Your task to perform on an android device: Open Google Chrome and open the bookmarks view Image 0: 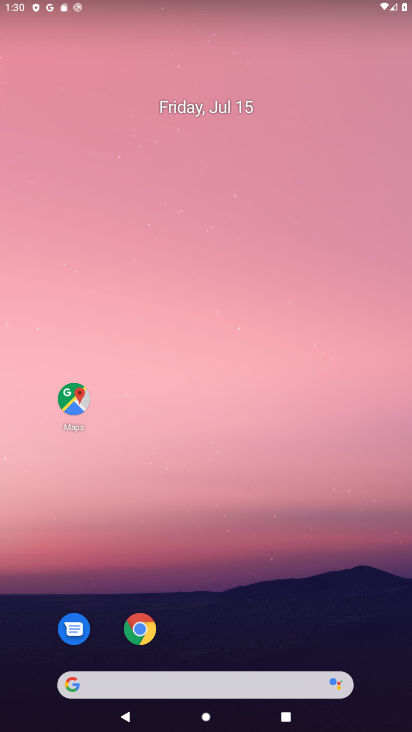
Step 0: click (147, 620)
Your task to perform on an android device: Open Google Chrome and open the bookmarks view Image 1: 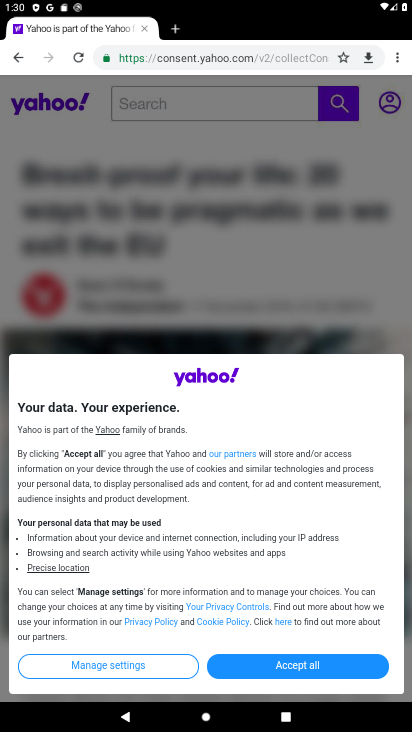
Step 1: click (397, 59)
Your task to perform on an android device: Open Google Chrome and open the bookmarks view Image 2: 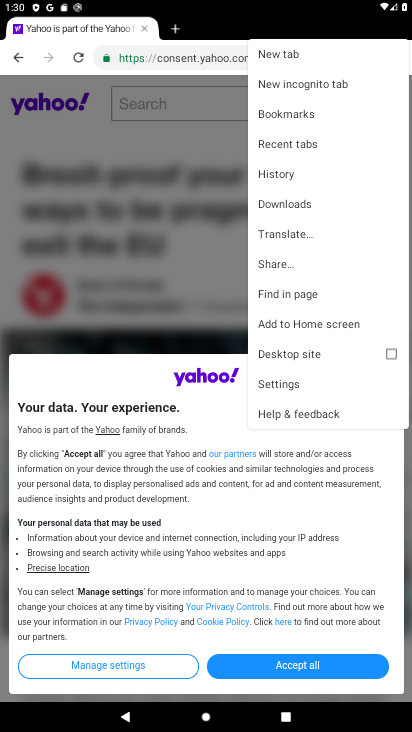
Step 2: click (289, 123)
Your task to perform on an android device: Open Google Chrome and open the bookmarks view Image 3: 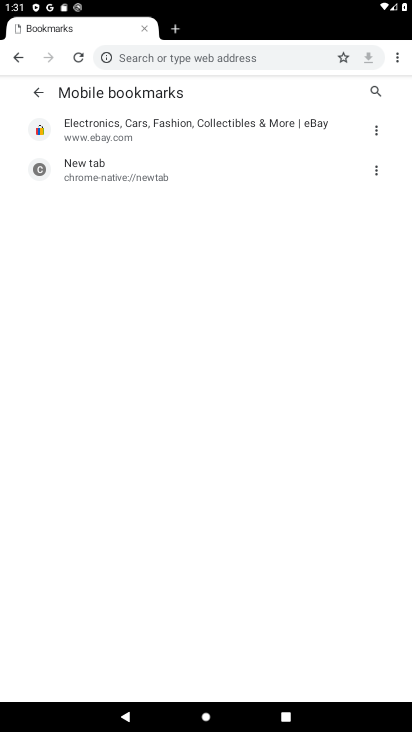
Step 3: task complete